Your task to perform on an android device: check storage Image 0: 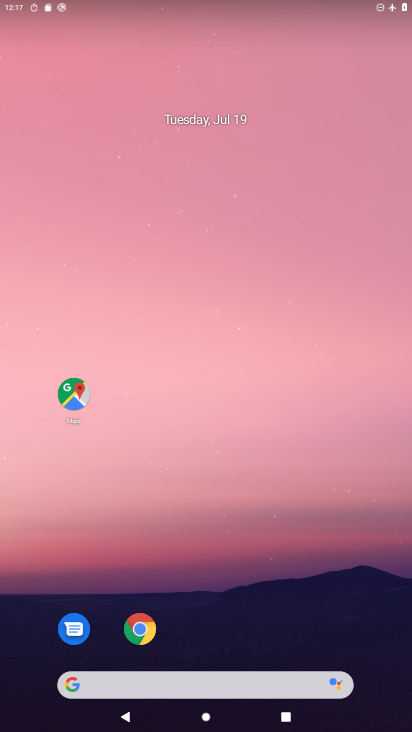
Step 0: drag from (263, 505) to (193, 98)
Your task to perform on an android device: check storage Image 1: 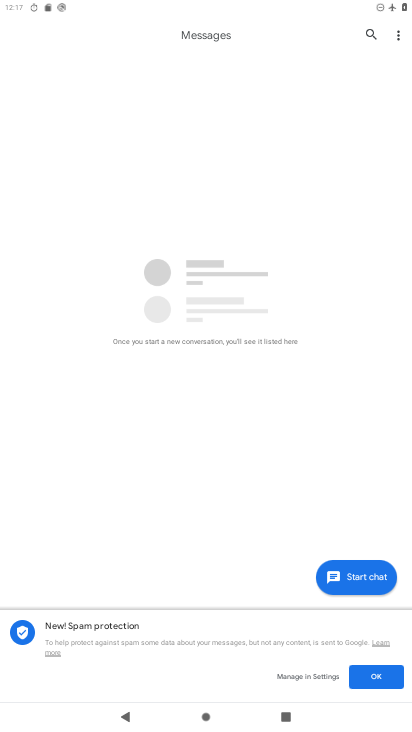
Step 1: press home button
Your task to perform on an android device: check storage Image 2: 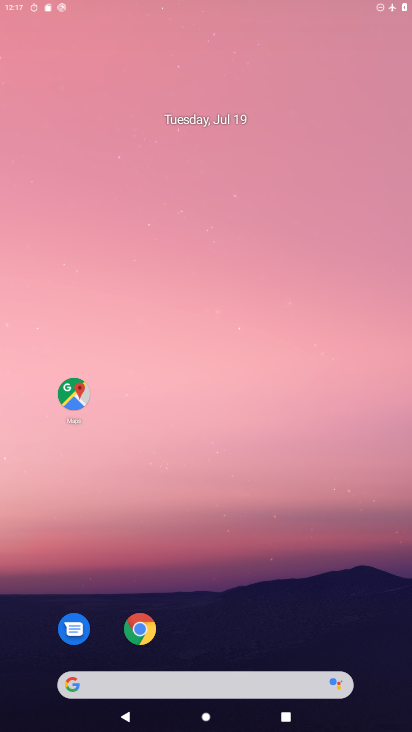
Step 2: drag from (286, 624) to (260, 72)
Your task to perform on an android device: check storage Image 3: 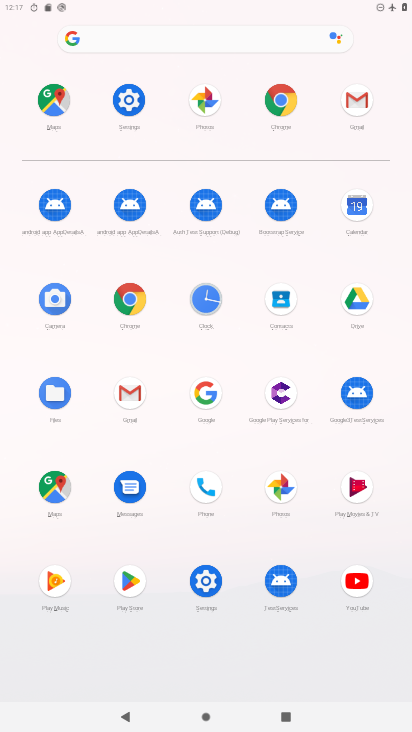
Step 3: click (126, 99)
Your task to perform on an android device: check storage Image 4: 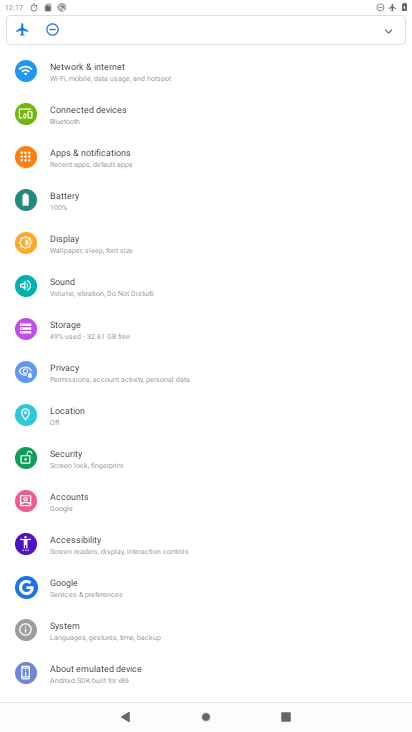
Step 4: click (62, 334)
Your task to perform on an android device: check storage Image 5: 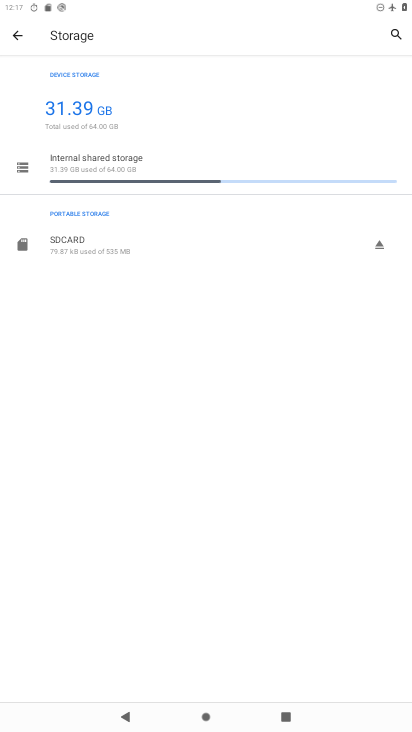
Step 5: task complete